Your task to perform on an android device: all mails in gmail Image 0: 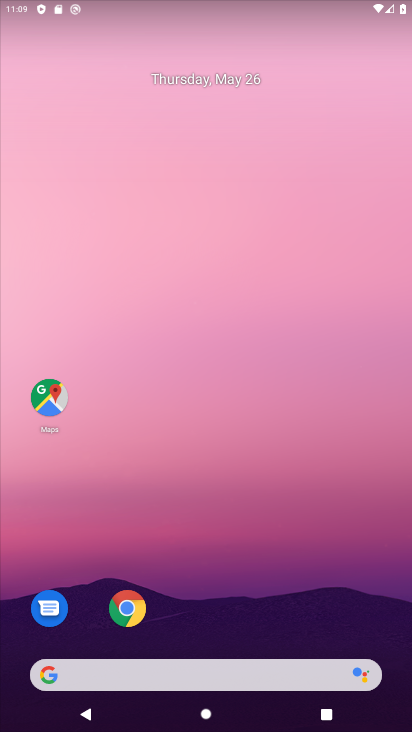
Step 0: drag from (277, 562) to (205, 101)
Your task to perform on an android device: all mails in gmail Image 1: 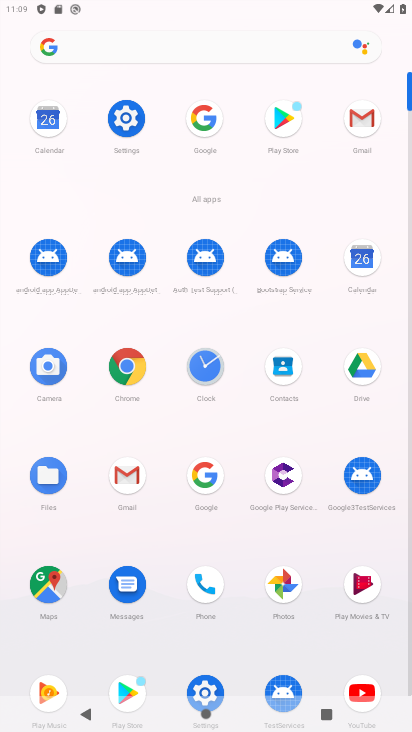
Step 1: click (364, 110)
Your task to perform on an android device: all mails in gmail Image 2: 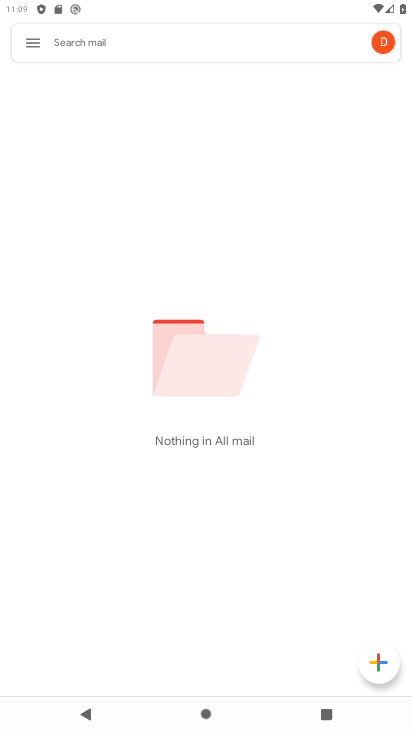
Step 2: task complete